Your task to perform on an android device: change notification settings in the gmail app Image 0: 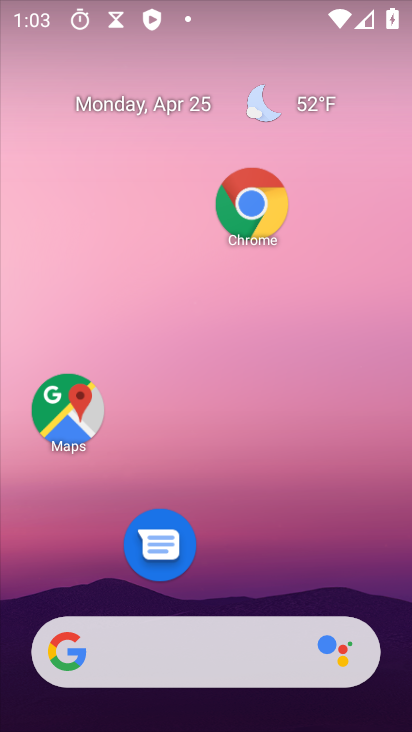
Step 0: drag from (355, 664) to (411, 154)
Your task to perform on an android device: change notification settings in the gmail app Image 1: 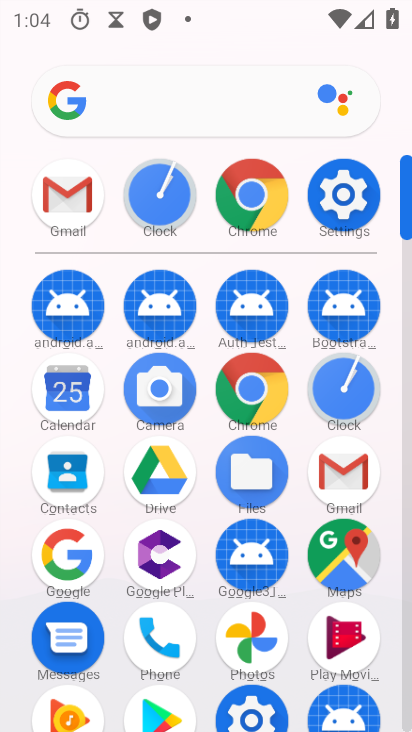
Step 1: click (80, 220)
Your task to perform on an android device: change notification settings in the gmail app Image 2: 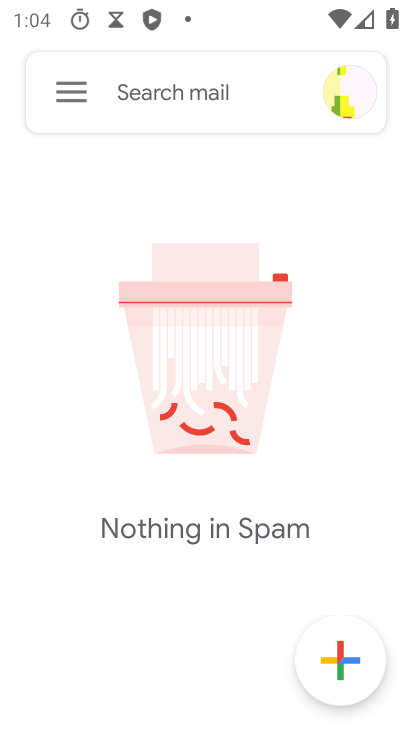
Step 2: click (65, 90)
Your task to perform on an android device: change notification settings in the gmail app Image 3: 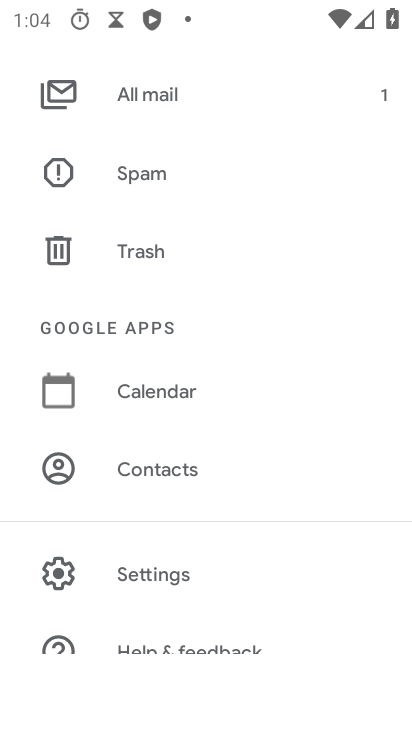
Step 3: click (139, 573)
Your task to perform on an android device: change notification settings in the gmail app Image 4: 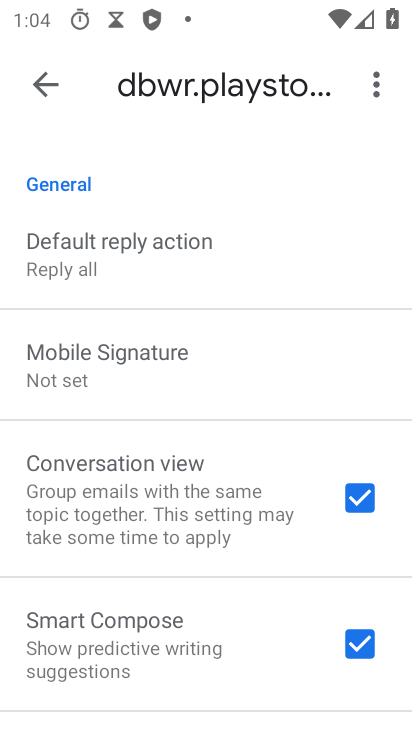
Step 4: drag from (169, 310) to (167, 608)
Your task to perform on an android device: change notification settings in the gmail app Image 5: 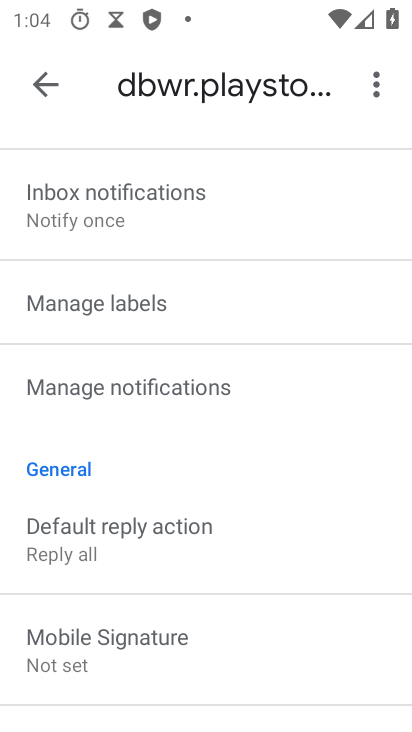
Step 5: drag from (152, 272) to (142, 489)
Your task to perform on an android device: change notification settings in the gmail app Image 6: 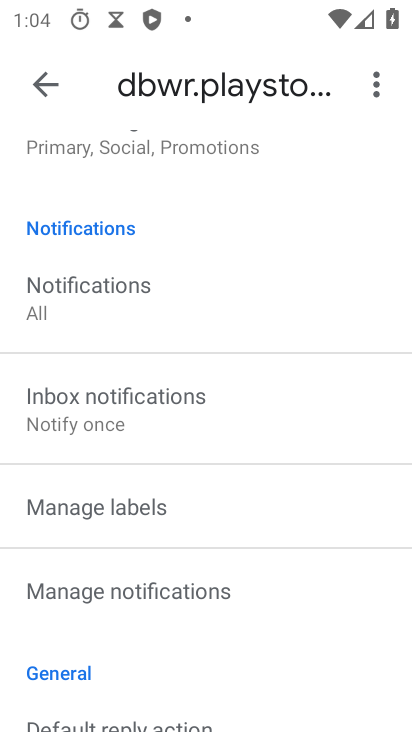
Step 6: click (93, 304)
Your task to perform on an android device: change notification settings in the gmail app Image 7: 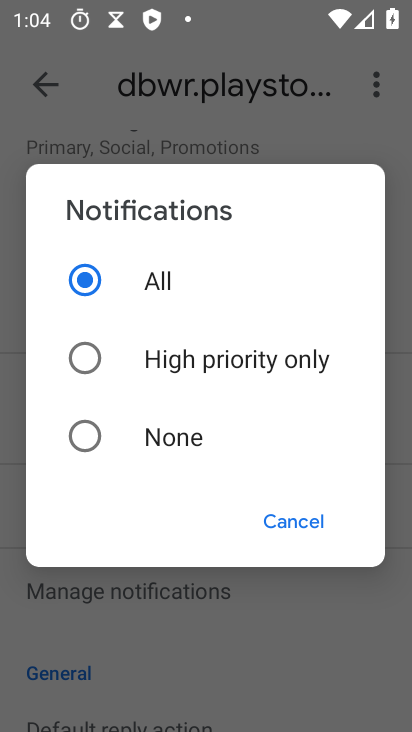
Step 7: task complete